Your task to perform on an android device: check the backup settings in the google photos Image 0: 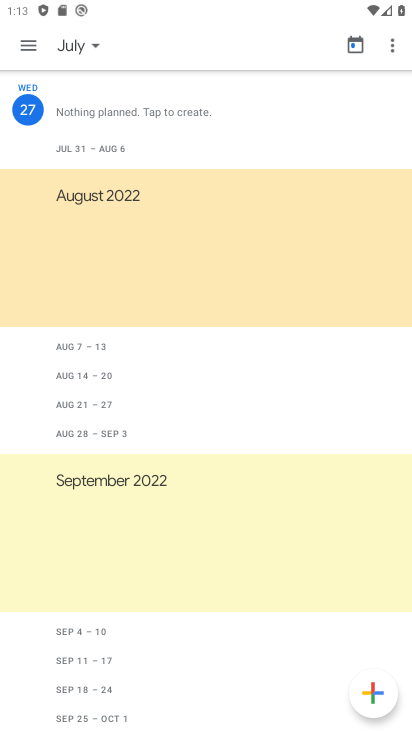
Step 0: press home button
Your task to perform on an android device: check the backup settings in the google photos Image 1: 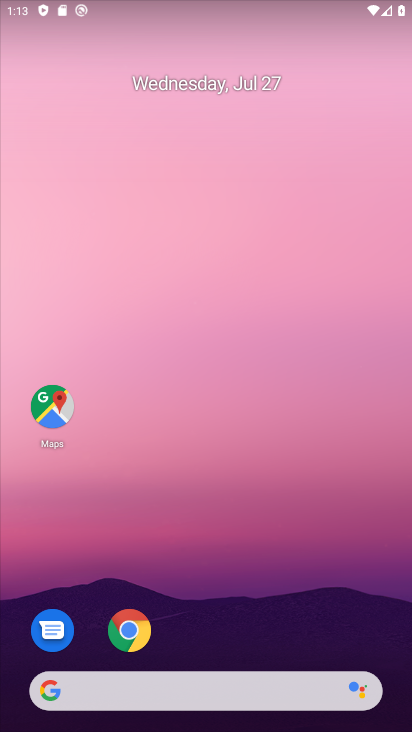
Step 1: drag from (389, 647) to (312, 174)
Your task to perform on an android device: check the backup settings in the google photos Image 2: 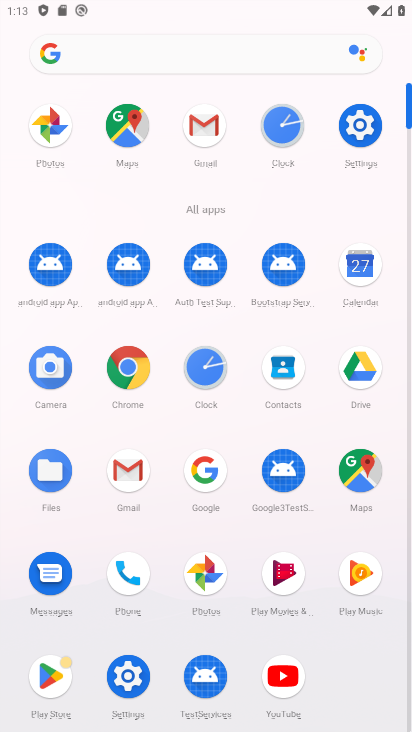
Step 2: click (206, 572)
Your task to perform on an android device: check the backup settings in the google photos Image 3: 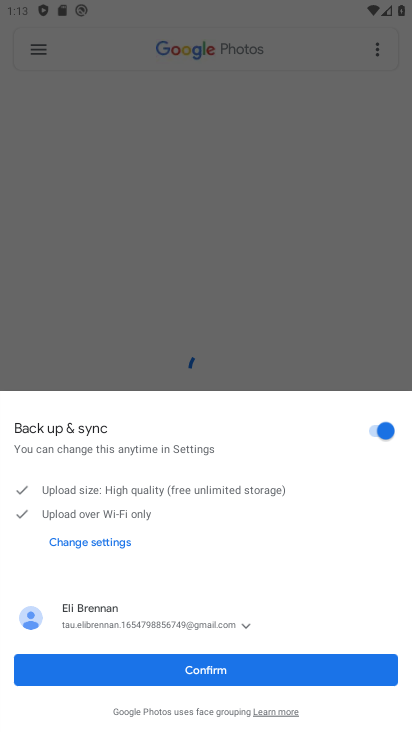
Step 3: click (201, 671)
Your task to perform on an android device: check the backup settings in the google photos Image 4: 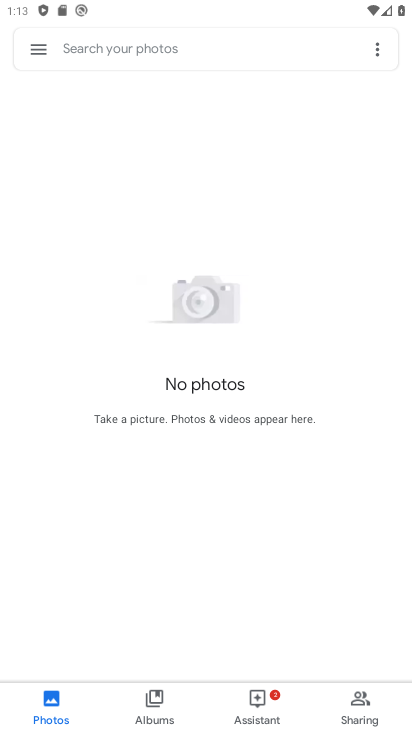
Step 4: click (39, 51)
Your task to perform on an android device: check the backup settings in the google photos Image 5: 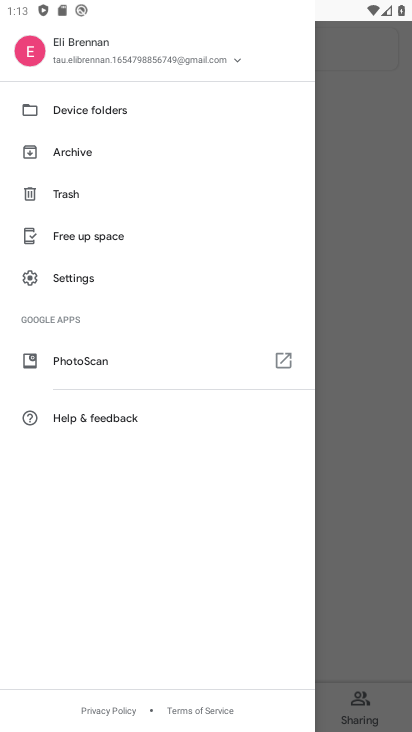
Step 5: click (64, 277)
Your task to perform on an android device: check the backup settings in the google photos Image 6: 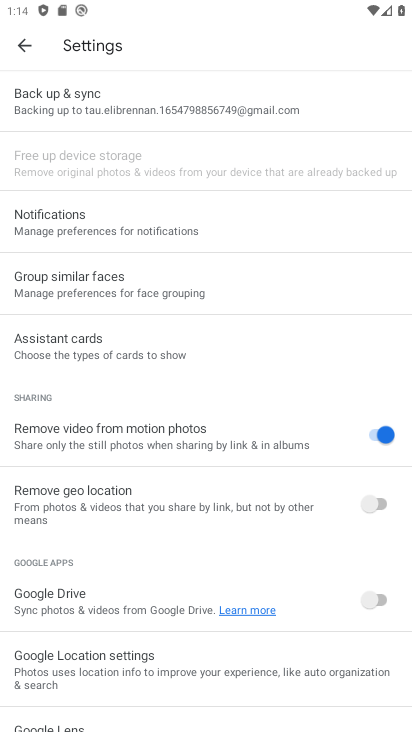
Step 6: click (72, 96)
Your task to perform on an android device: check the backup settings in the google photos Image 7: 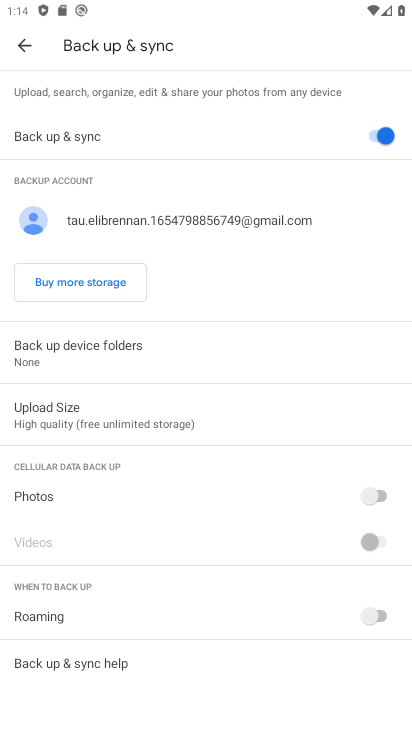
Step 7: task complete